Your task to perform on an android device: change the clock display to show seconds Image 0: 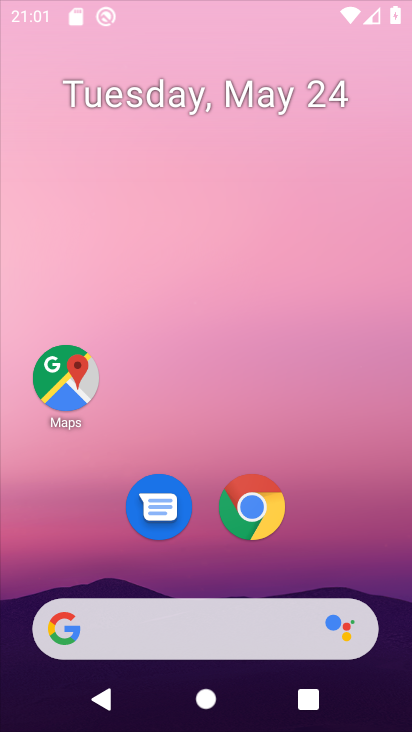
Step 0: drag from (178, 575) to (204, 143)
Your task to perform on an android device: change the clock display to show seconds Image 1: 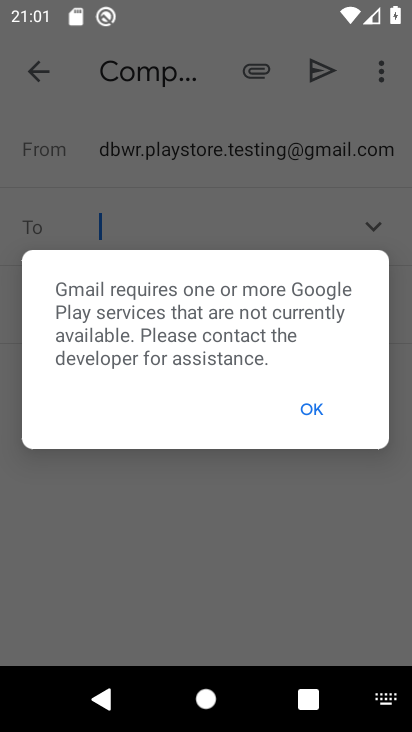
Step 1: press home button
Your task to perform on an android device: change the clock display to show seconds Image 2: 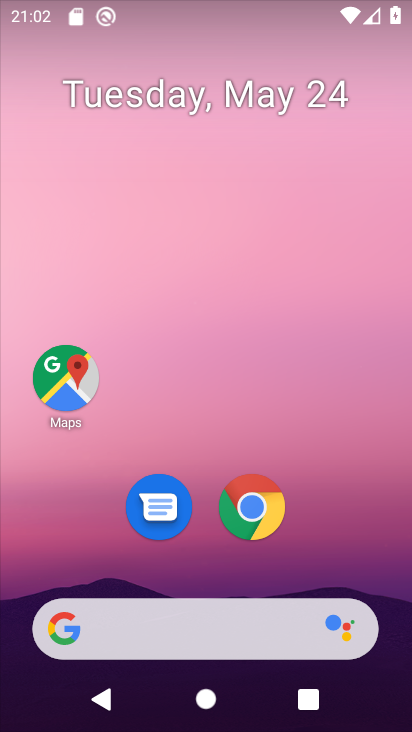
Step 2: drag from (182, 559) to (227, 200)
Your task to perform on an android device: change the clock display to show seconds Image 3: 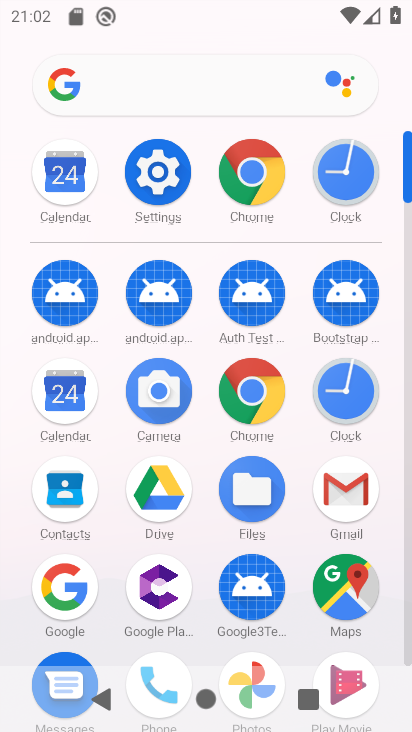
Step 3: click (346, 379)
Your task to perform on an android device: change the clock display to show seconds Image 4: 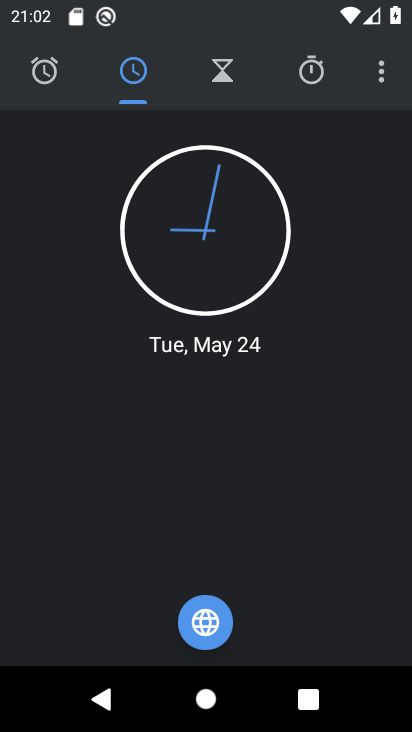
Step 4: click (384, 62)
Your task to perform on an android device: change the clock display to show seconds Image 5: 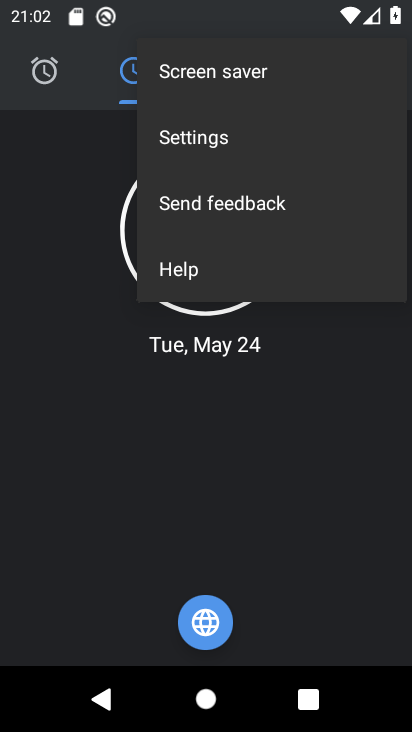
Step 5: click (217, 141)
Your task to perform on an android device: change the clock display to show seconds Image 6: 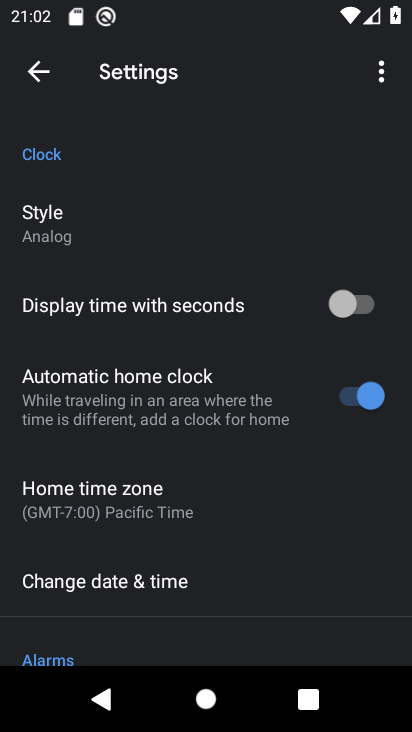
Step 6: drag from (272, 498) to (324, 261)
Your task to perform on an android device: change the clock display to show seconds Image 7: 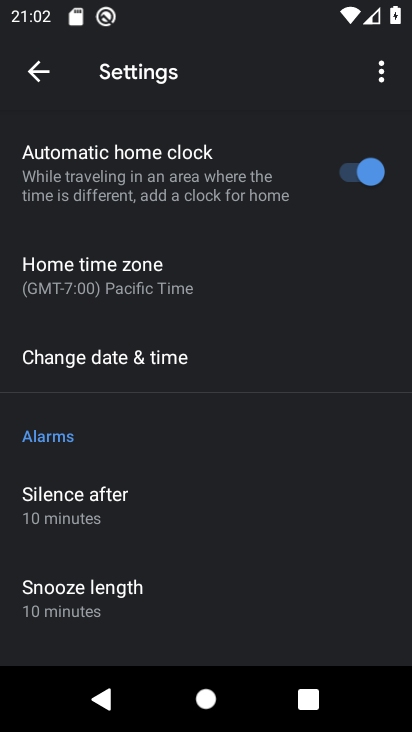
Step 7: drag from (266, 157) to (321, 502)
Your task to perform on an android device: change the clock display to show seconds Image 8: 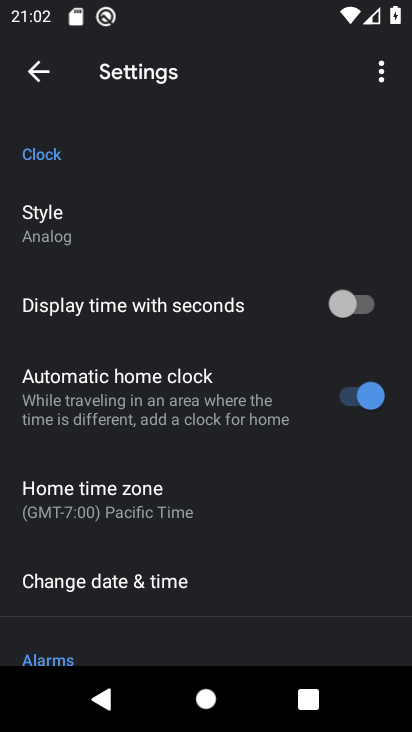
Step 8: click (349, 303)
Your task to perform on an android device: change the clock display to show seconds Image 9: 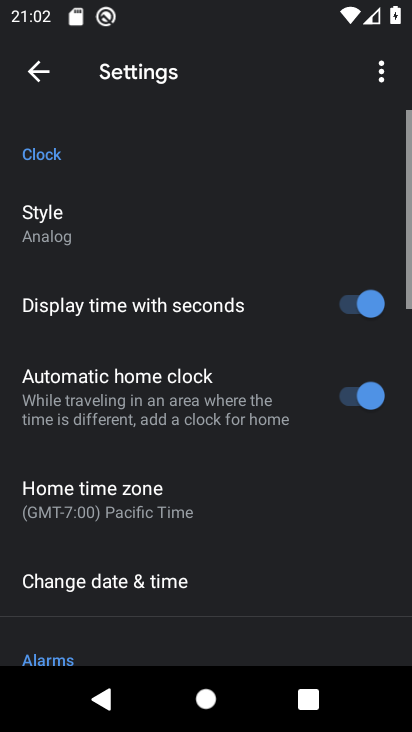
Step 9: task complete